Your task to perform on an android device: Clear all items from cart on walmart.com. Search for logitech g pro on walmart.com, select the first entry, and add it to the cart. Image 0: 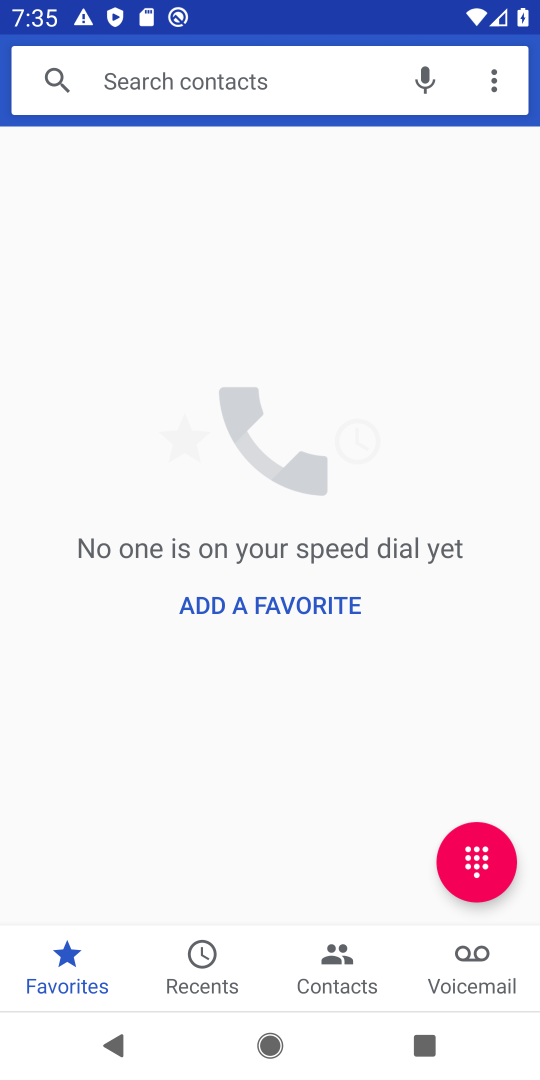
Step 0: click (322, 97)
Your task to perform on an android device: Clear all items from cart on walmart.com. Search for logitech g pro on walmart.com, select the first entry, and add it to the cart. Image 1: 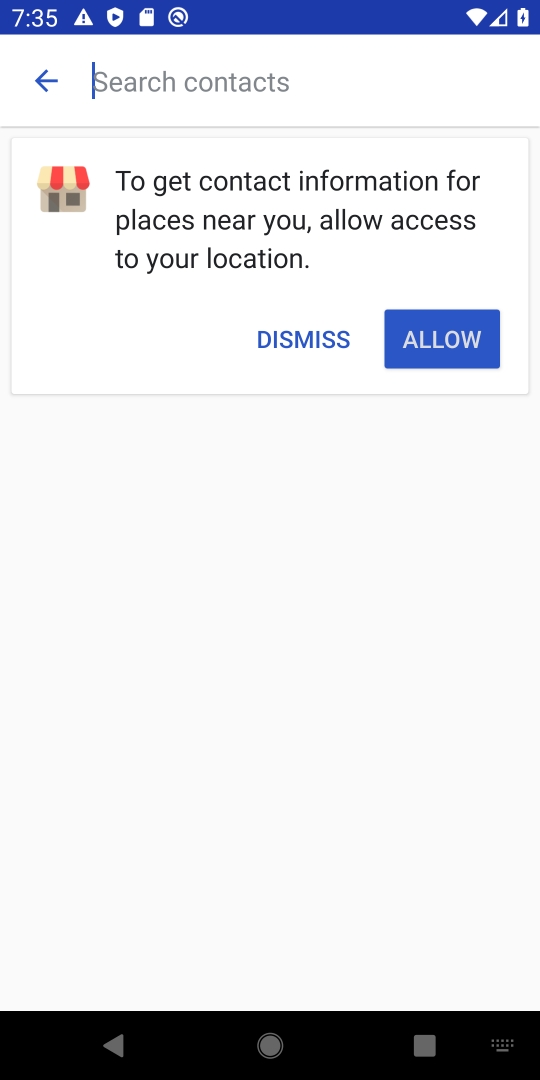
Step 1: press home button
Your task to perform on an android device: Clear all items from cart on walmart.com. Search for logitech g pro on walmart.com, select the first entry, and add it to the cart. Image 2: 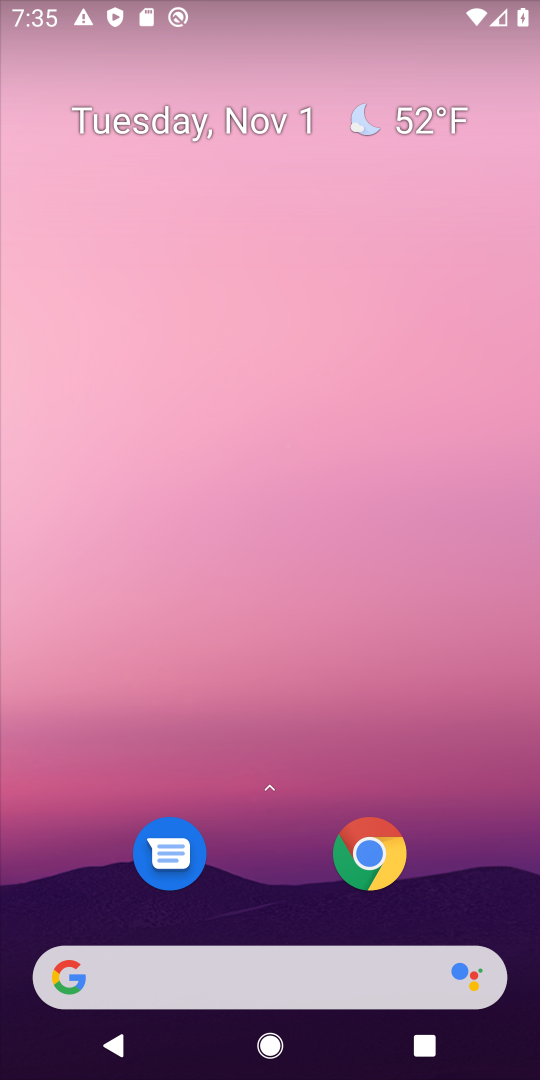
Step 2: click (318, 967)
Your task to perform on an android device: Clear all items from cart on walmart.com. Search for logitech g pro on walmart.com, select the first entry, and add it to the cart. Image 3: 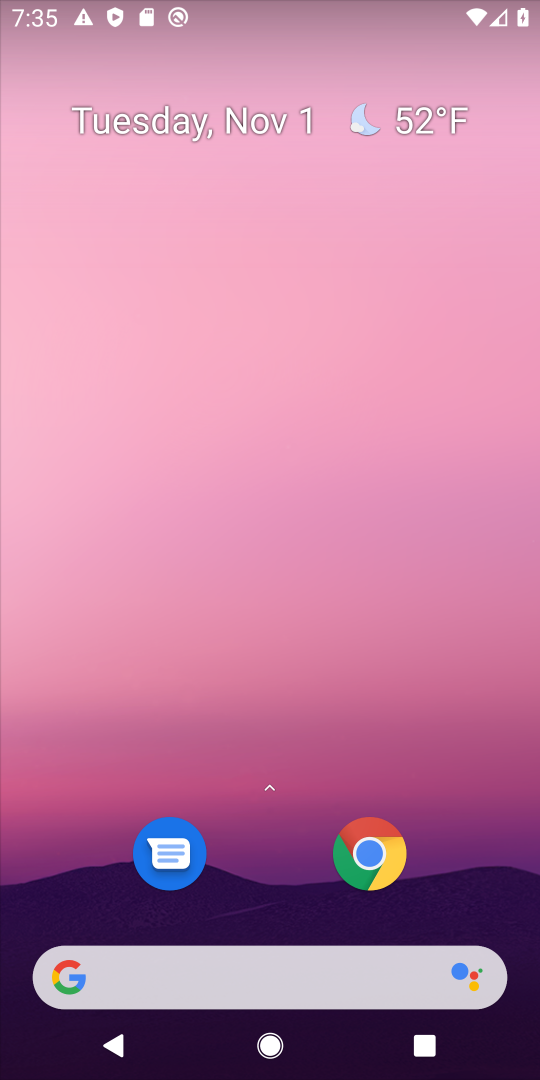
Step 3: click (318, 967)
Your task to perform on an android device: Clear all items from cart on walmart.com. Search for logitech g pro on walmart.com, select the first entry, and add it to the cart. Image 4: 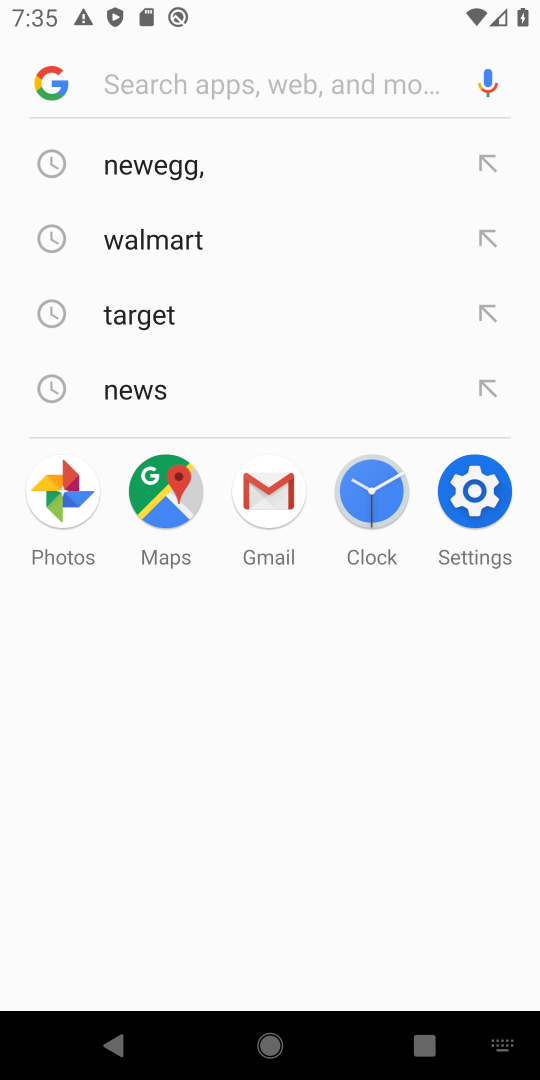
Step 4: type "walmart"
Your task to perform on an android device: Clear all items from cart on walmart.com. Search for logitech g pro on walmart.com, select the first entry, and add it to the cart. Image 5: 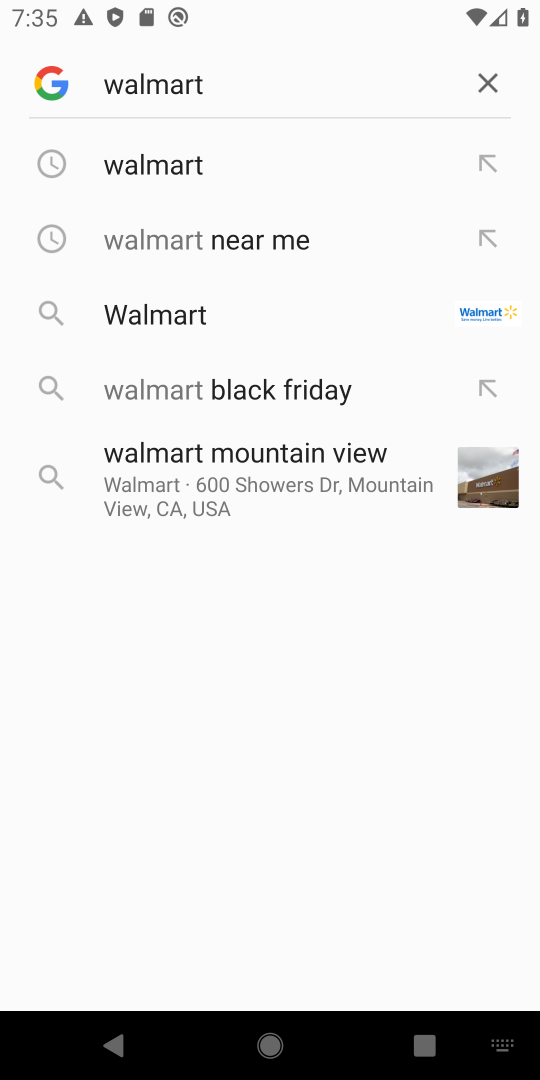
Step 5: click (133, 142)
Your task to perform on an android device: Clear all items from cart on walmart.com. Search for logitech g pro on walmart.com, select the first entry, and add it to the cart. Image 6: 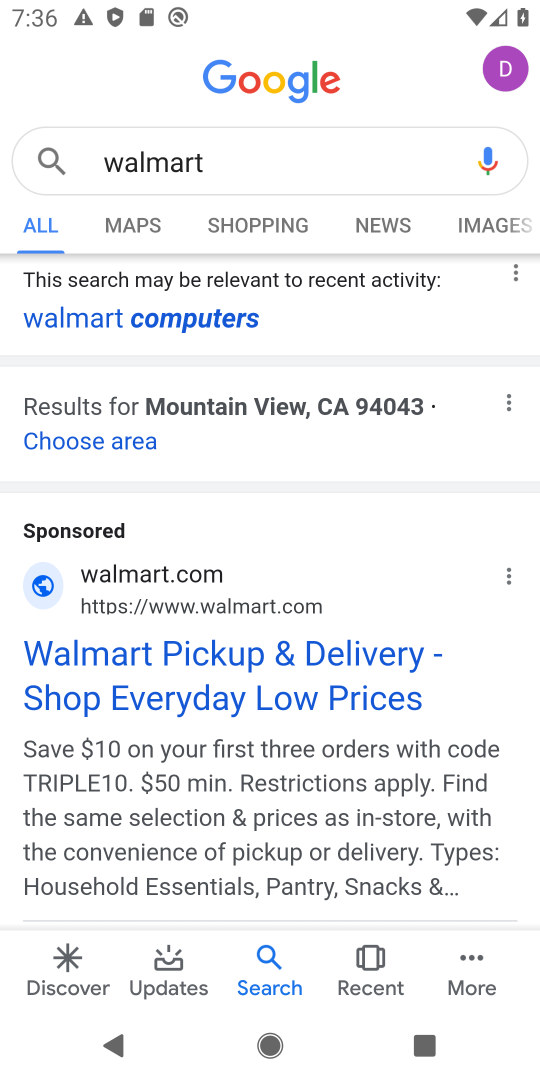
Step 6: click (122, 659)
Your task to perform on an android device: Clear all items from cart on walmart.com. Search for logitech g pro on walmart.com, select the first entry, and add it to the cart. Image 7: 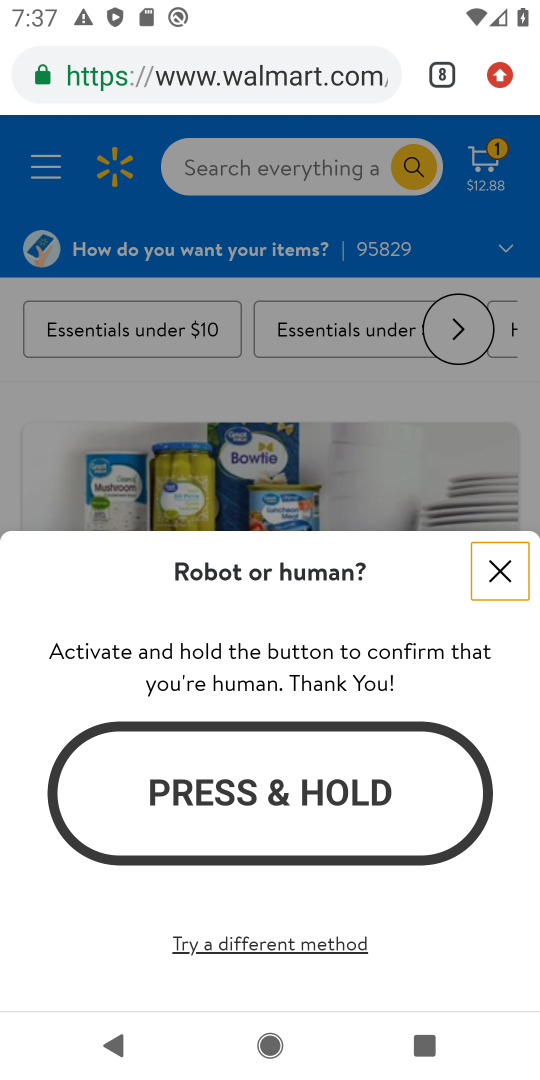
Step 7: click (486, 574)
Your task to perform on an android device: Clear all items from cart on walmart.com. Search for logitech g pro on walmart.com, select the first entry, and add it to the cart. Image 8: 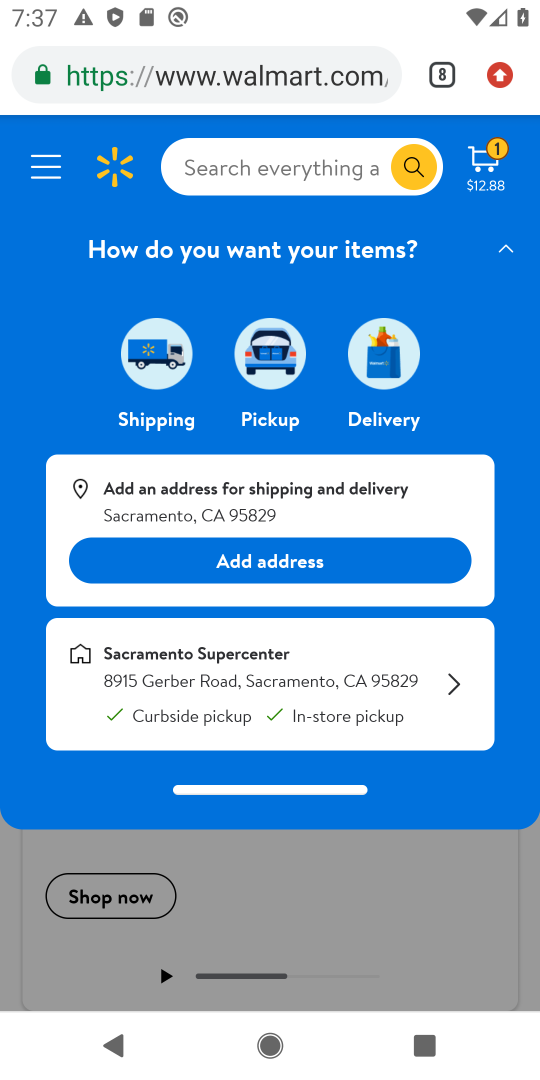
Step 8: click (310, 187)
Your task to perform on an android device: Clear all items from cart on walmart.com. Search for logitech g pro on walmart.com, select the first entry, and add it to the cart. Image 9: 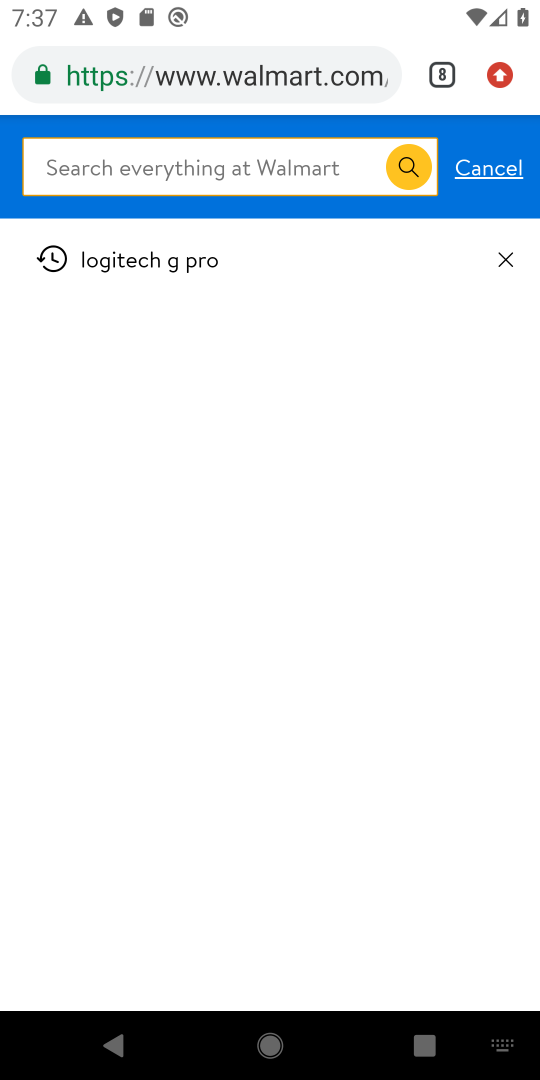
Step 9: type "logictec g pro"
Your task to perform on an android device: Clear all items from cart on walmart.com. Search for logitech g pro on walmart.com, select the first entry, and add it to the cart. Image 10: 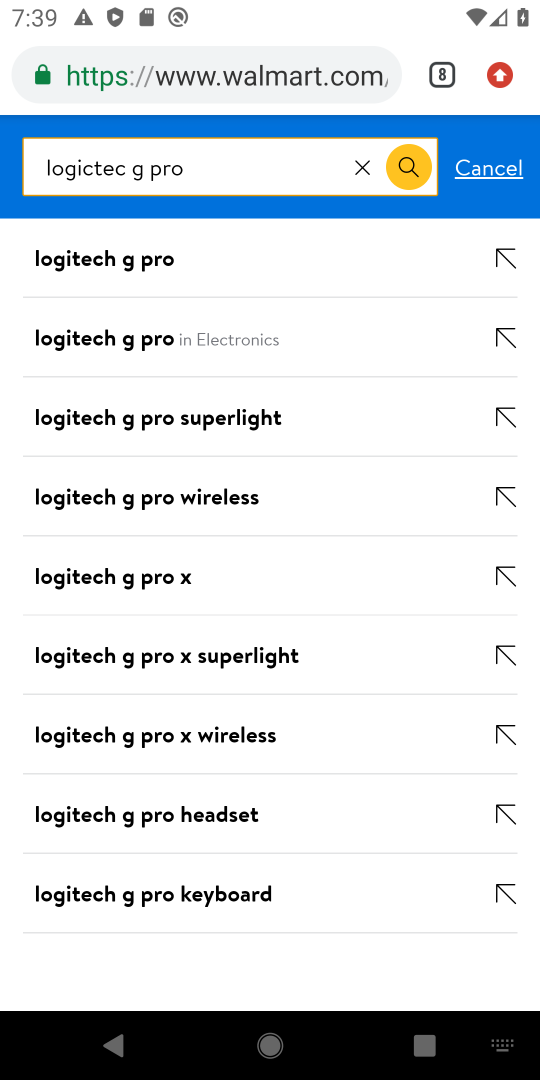
Step 10: click (174, 258)
Your task to perform on an android device: Clear all items from cart on walmart.com. Search for logitech g pro on walmart.com, select the first entry, and add it to the cart. Image 11: 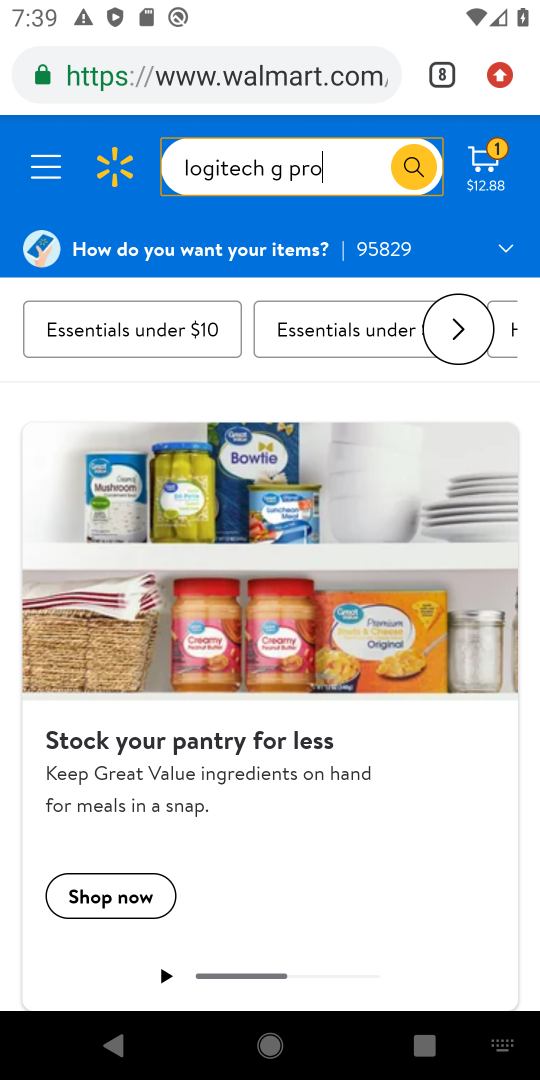
Step 11: click (403, 165)
Your task to perform on an android device: Clear all items from cart on walmart.com. Search for logitech g pro on walmart.com, select the first entry, and add it to the cart. Image 12: 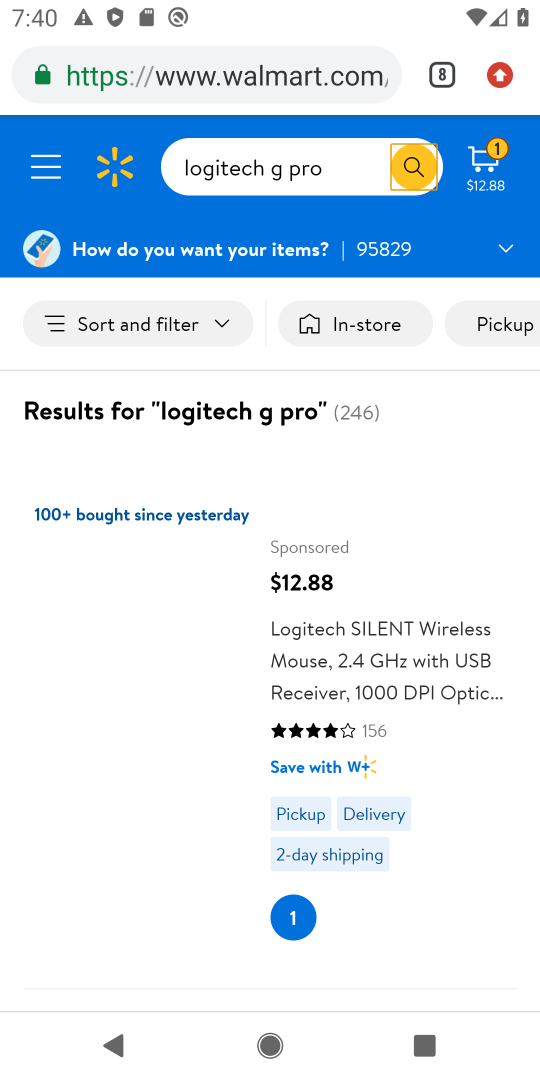
Step 12: task complete